Your task to perform on an android device: change the upload size in google photos Image 0: 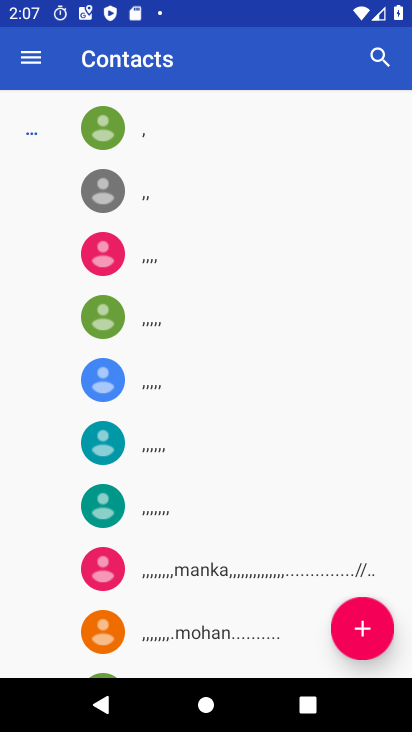
Step 0: press home button
Your task to perform on an android device: change the upload size in google photos Image 1: 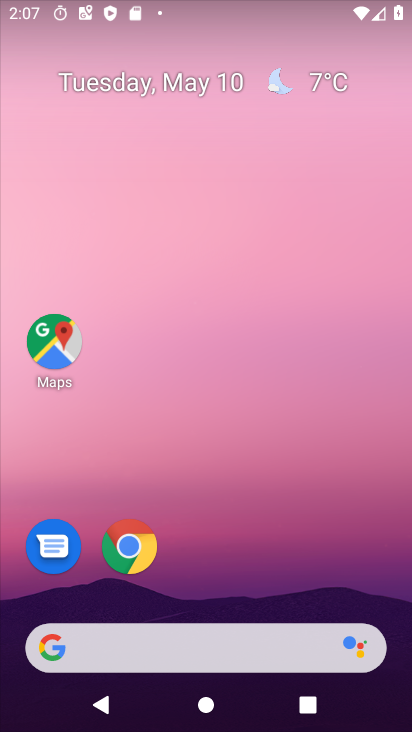
Step 1: drag from (290, 520) to (251, 247)
Your task to perform on an android device: change the upload size in google photos Image 2: 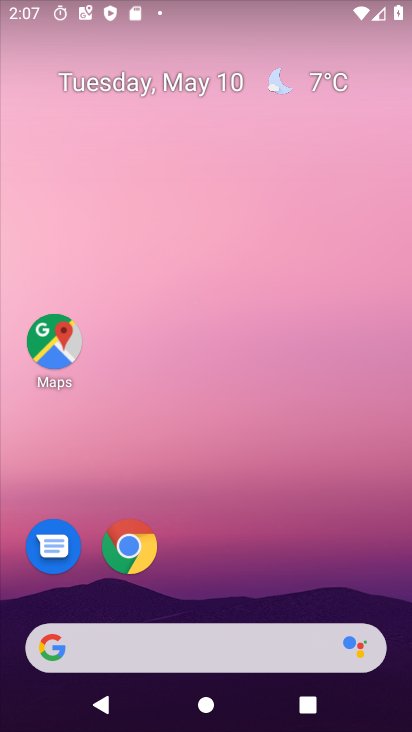
Step 2: drag from (305, 550) to (240, 228)
Your task to perform on an android device: change the upload size in google photos Image 3: 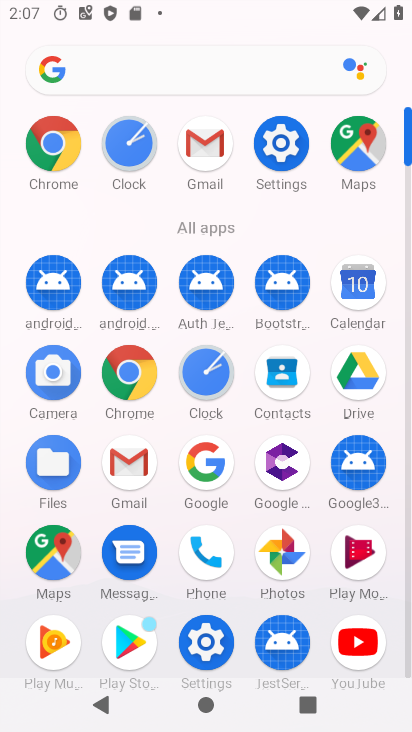
Step 3: click (284, 555)
Your task to perform on an android device: change the upload size in google photos Image 4: 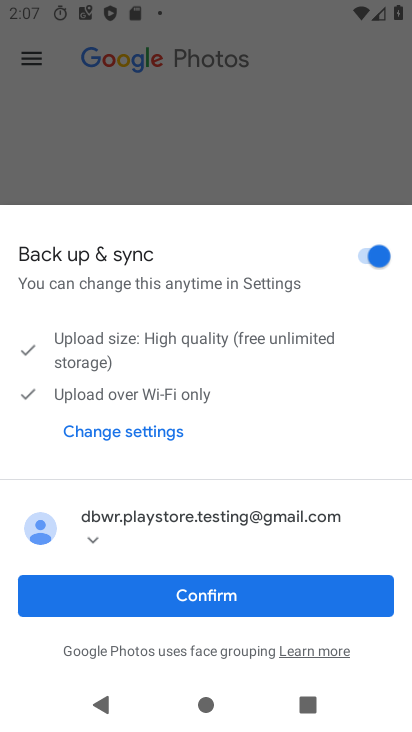
Step 4: click (196, 607)
Your task to perform on an android device: change the upload size in google photos Image 5: 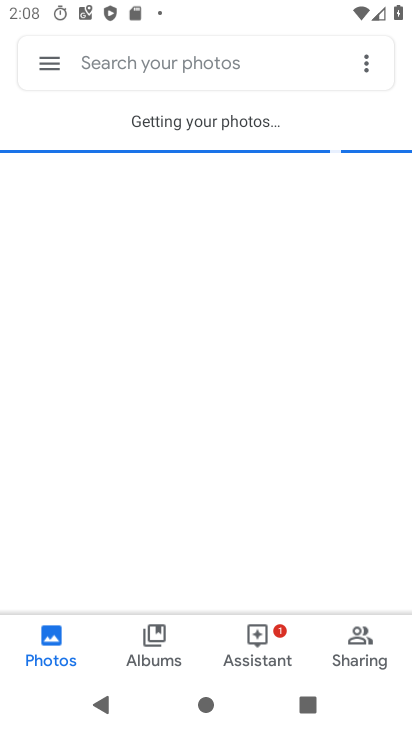
Step 5: click (54, 49)
Your task to perform on an android device: change the upload size in google photos Image 6: 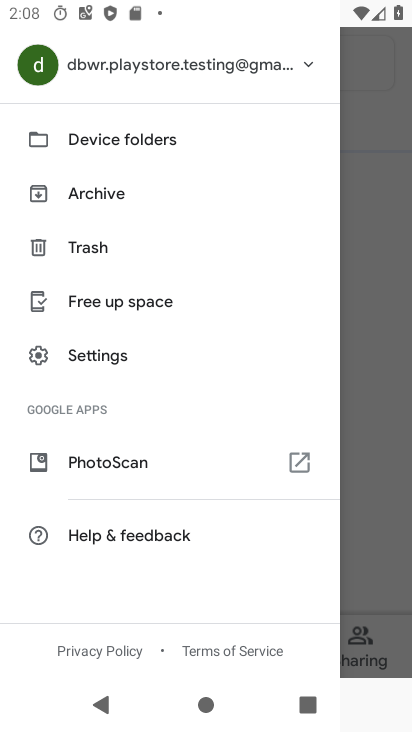
Step 6: click (128, 358)
Your task to perform on an android device: change the upload size in google photos Image 7: 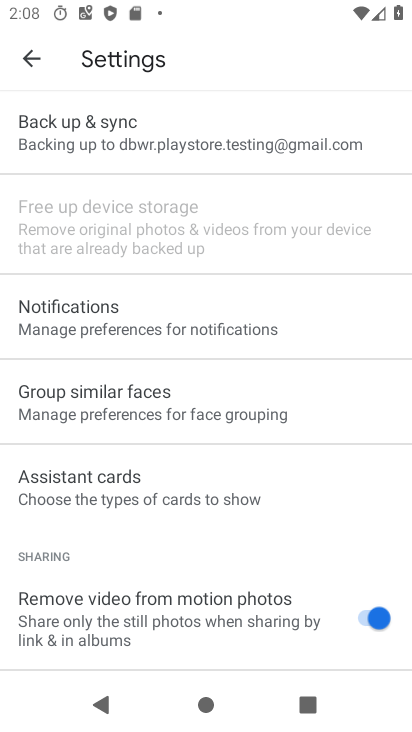
Step 7: drag from (146, 587) to (191, 189)
Your task to perform on an android device: change the upload size in google photos Image 8: 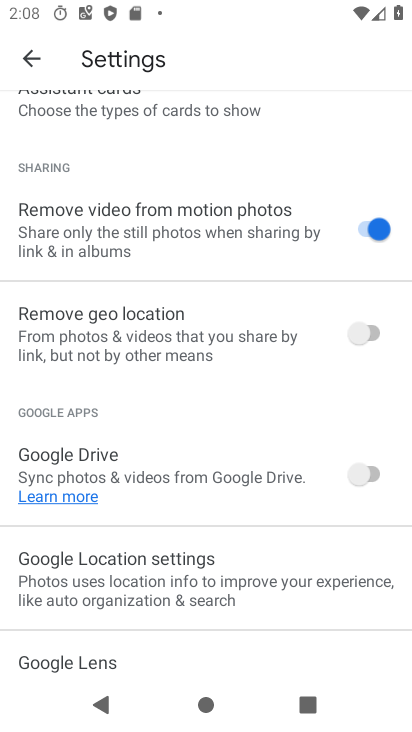
Step 8: drag from (146, 472) to (108, 101)
Your task to perform on an android device: change the upload size in google photos Image 9: 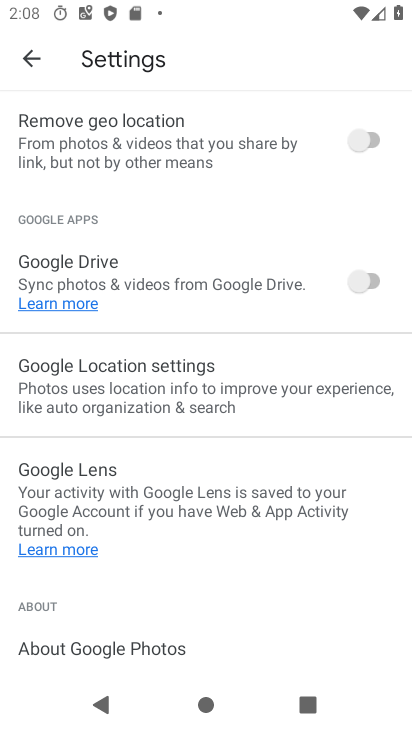
Step 9: drag from (126, 523) to (110, 206)
Your task to perform on an android device: change the upload size in google photos Image 10: 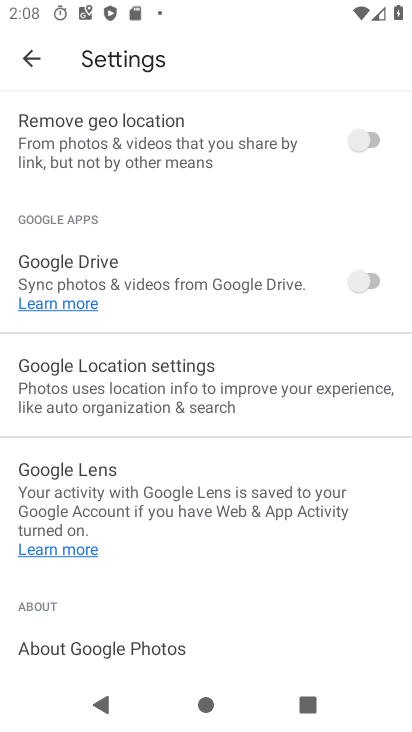
Step 10: drag from (120, 245) to (149, 551)
Your task to perform on an android device: change the upload size in google photos Image 11: 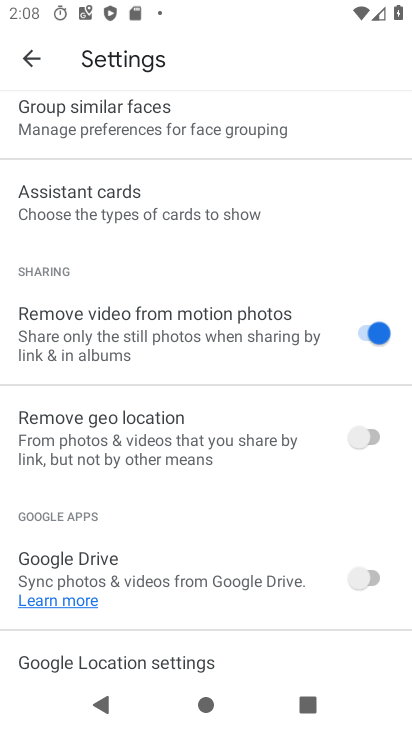
Step 11: drag from (158, 311) to (200, 591)
Your task to perform on an android device: change the upload size in google photos Image 12: 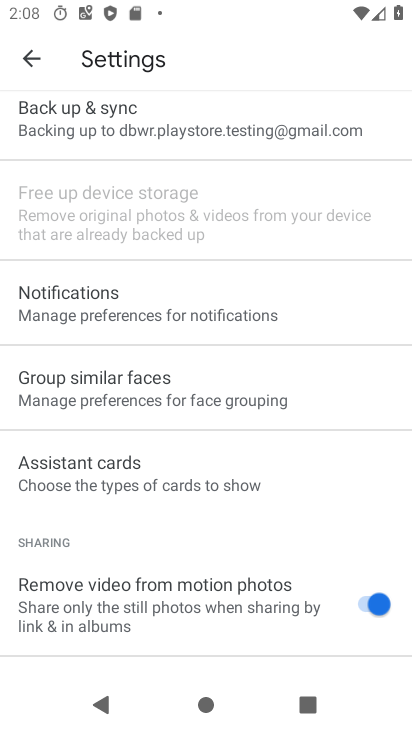
Step 12: drag from (182, 224) to (218, 551)
Your task to perform on an android device: change the upload size in google photos Image 13: 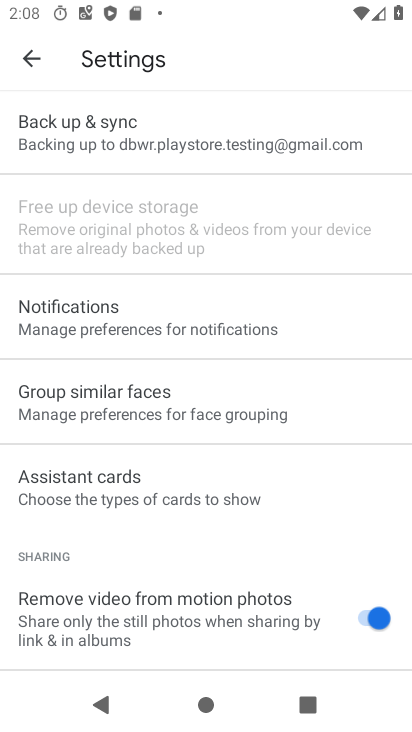
Step 13: click (80, 147)
Your task to perform on an android device: change the upload size in google photos Image 14: 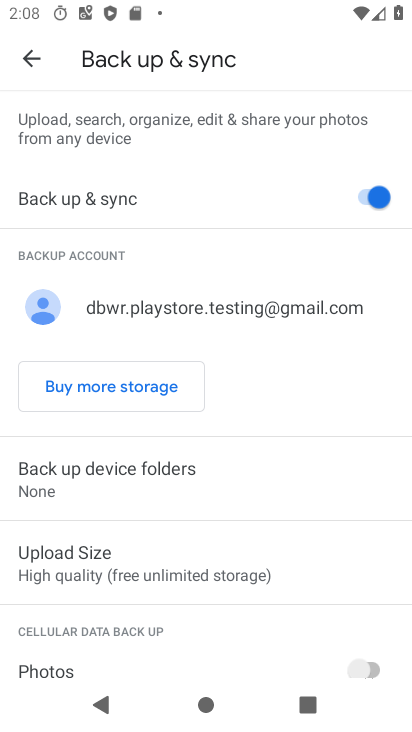
Step 14: click (156, 565)
Your task to perform on an android device: change the upload size in google photos Image 15: 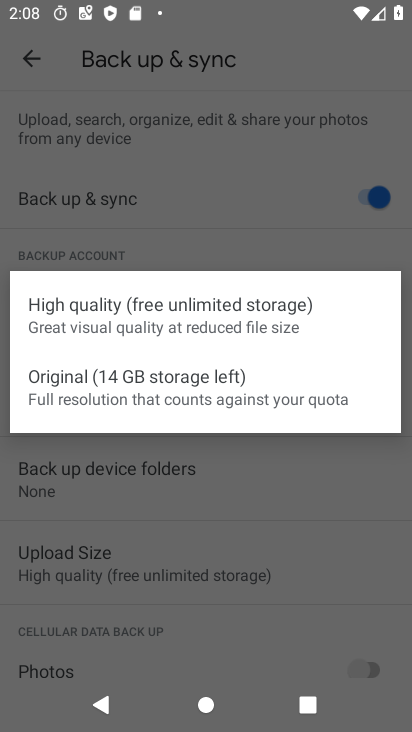
Step 15: click (105, 390)
Your task to perform on an android device: change the upload size in google photos Image 16: 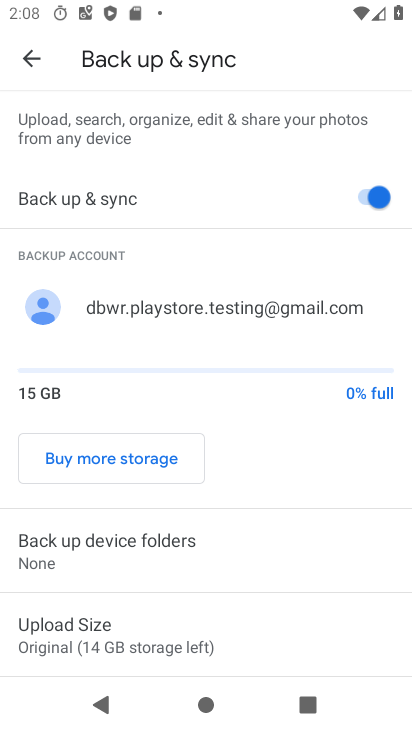
Step 16: task complete